Your task to perform on an android device: Open my contact list Image 0: 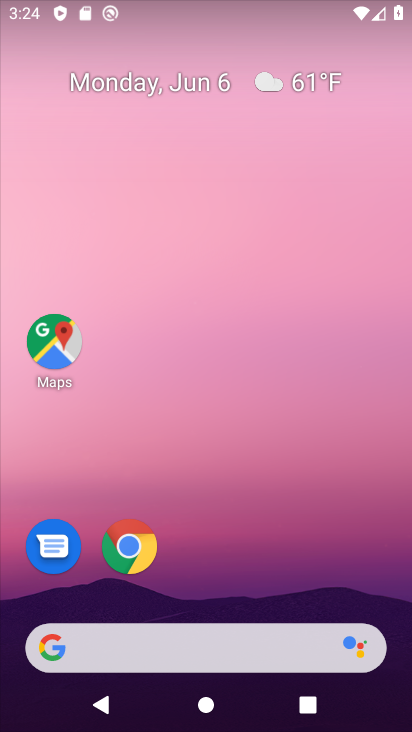
Step 0: press home button
Your task to perform on an android device: Open my contact list Image 1: 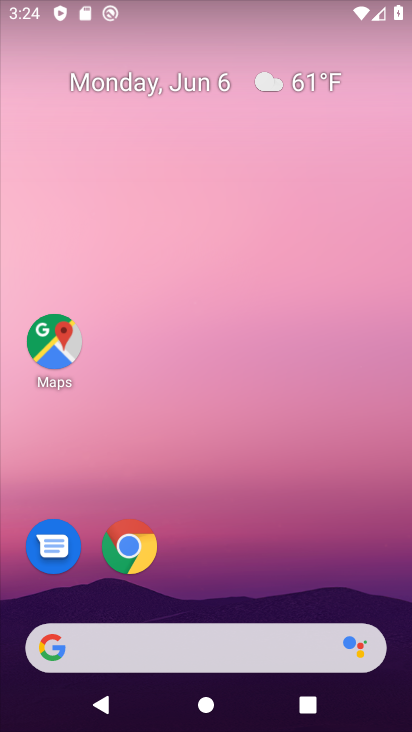
Step 1: drag from (212, 614) to (207, 255)
Your task to perform on an android device: Open my contact list Image 2: 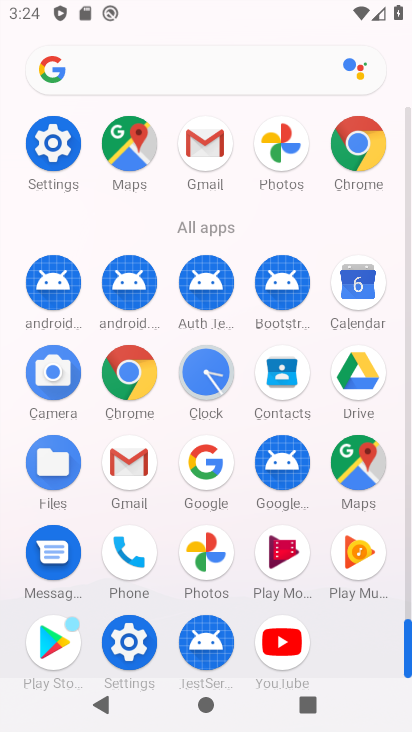
Step 2: click (284, 384)
Your task to perform on an android device: Open my contact list Image 3: 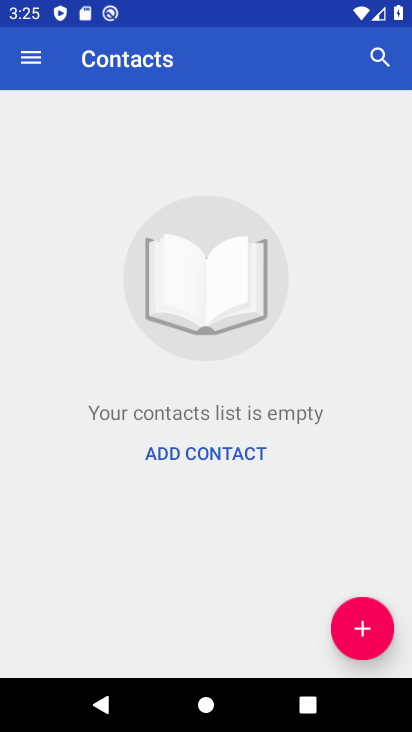
Step 3: task complete